Your task to perform on an android device: open a bookmark in the chrome app Image 0: 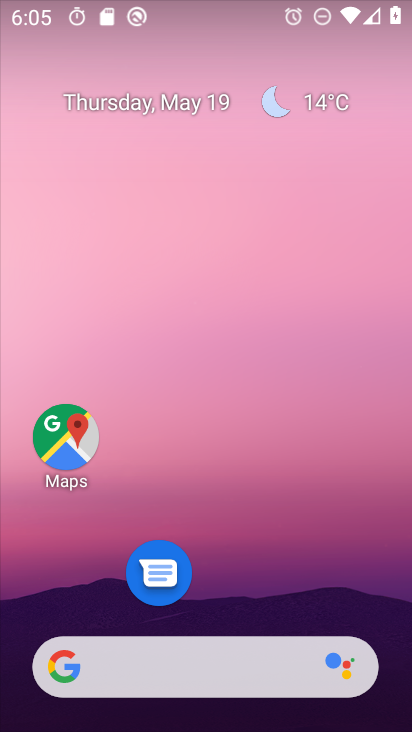
Step 0: drag from (218, 588) to (224, 224)
Your task to perform on an android device: open a bookmark in the chrome app Image 1: 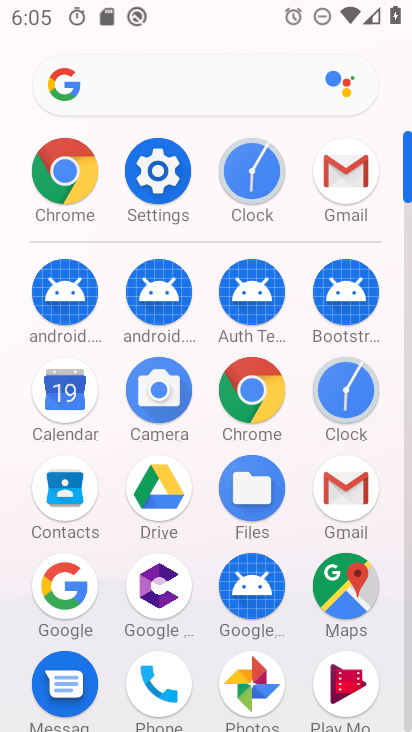
Step 1: click (71, 203)
Your task to perform on an android device: open a bookmark in the chrome app Image 2: 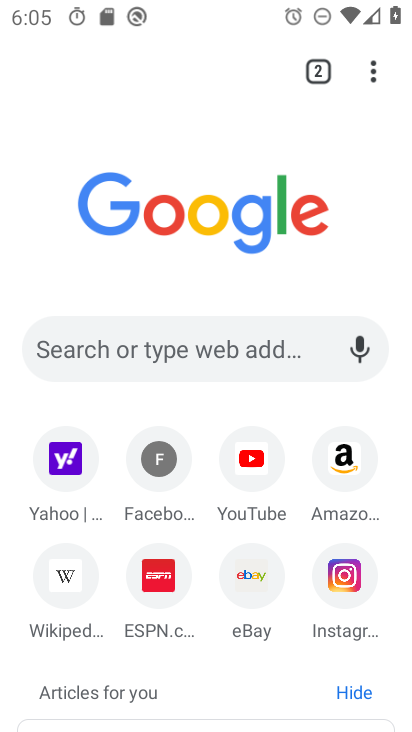
Step 2: click (371, 76)
Your task to perform on an android device: open a bookmark in the chrome app Image 3: 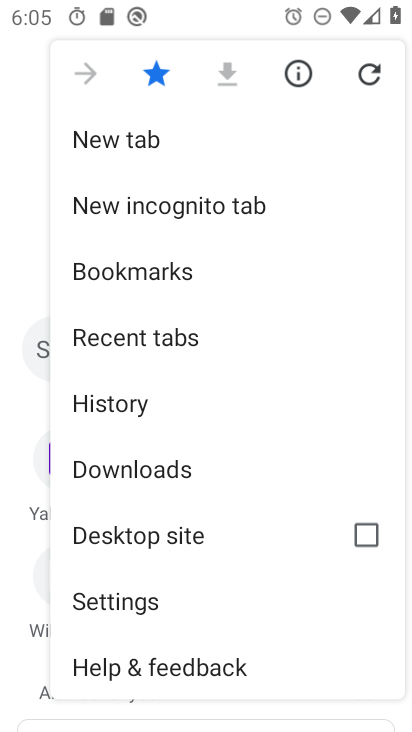
Step 3: click (137, 279)
Your task to perform on an android device: open a bookmark in the chrome app Image 4: 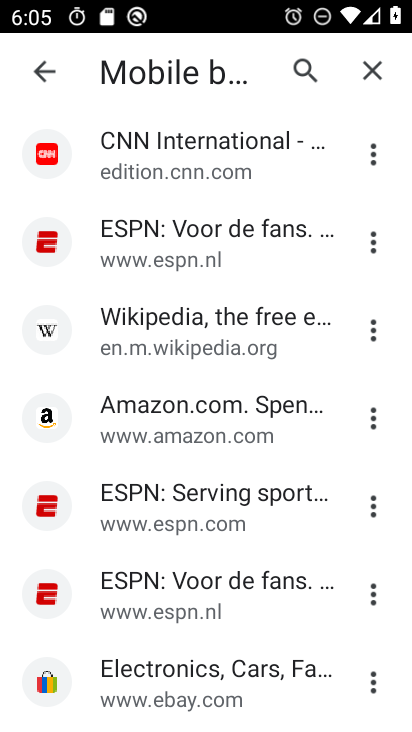
Step 4: click (182, 228)
Your task to perform on an android device: open a bookmark in the chrome app Image 5: 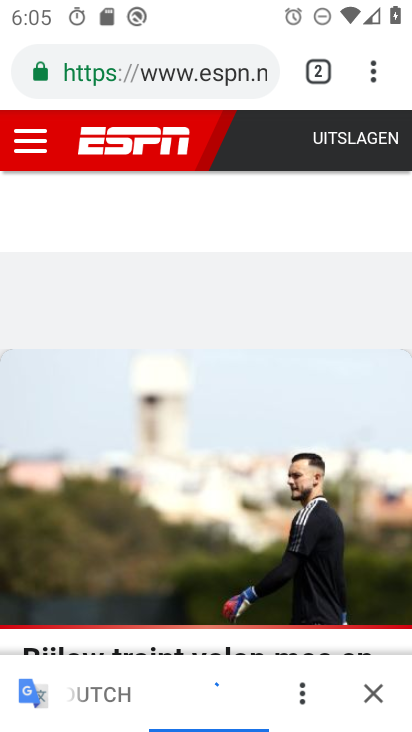
Step 5: task complete